Your task to perform on an android device: find snoozed emails in the gmail app Image 0: 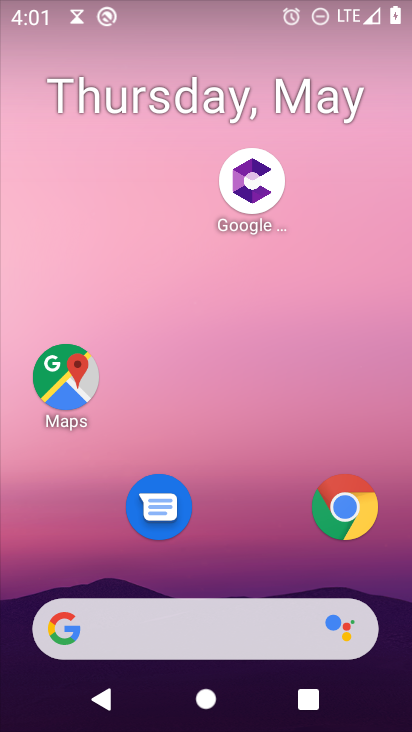
Step 0: press home button
Your task to perform on an android device: find snoozed emails in the gmail app Image 1: 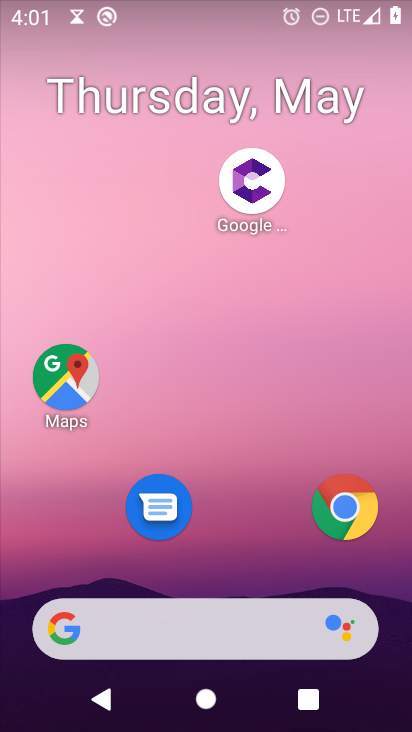
Step 1: drag from (294, 422) to (252, 53)
Your task to perform on an android device: find snoozed emails in the gmail app Image 2: 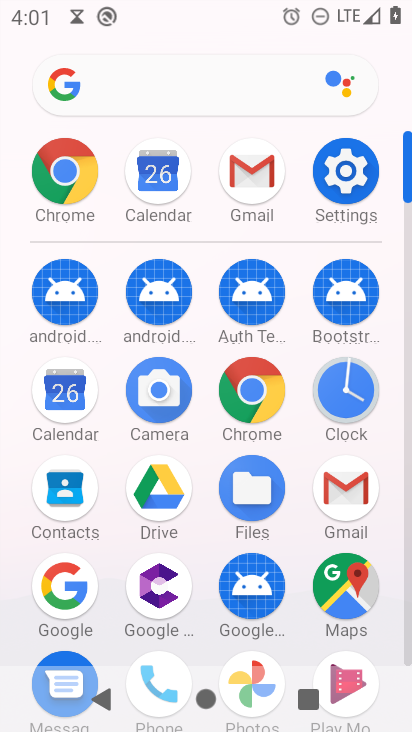
Step 2: click (252, 172)
Your task to perform on an android device: find snoozed emails in the gmail app Image 3: 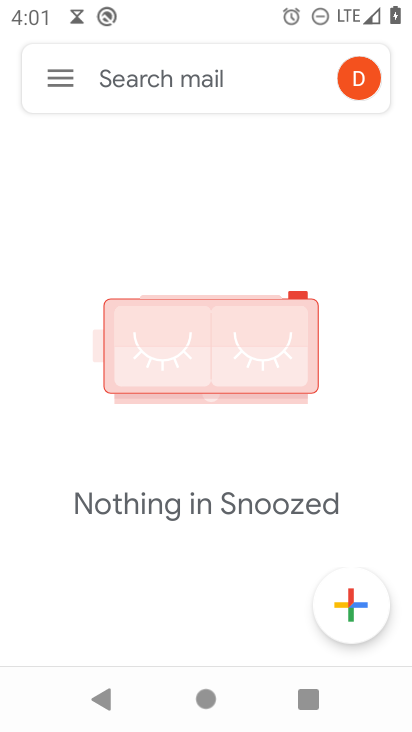
Step 3: click (57, 79)
Your task to perform on an android device: find snoozed emails in the gmail app Image 4: 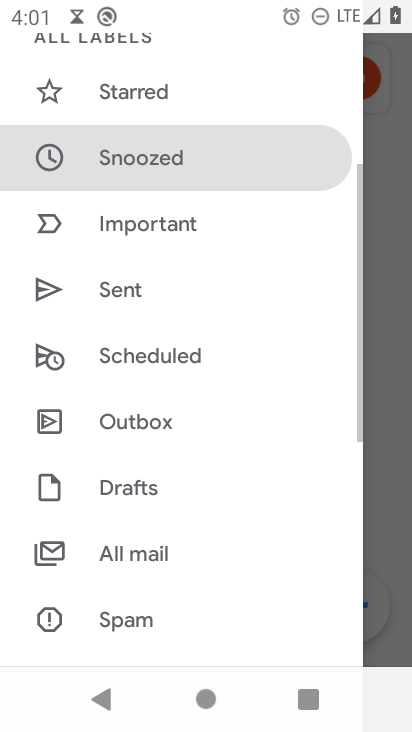
Step 4: click (86, 163)
Your task to perform on an android device: find snoozed emails in the gmail app Image 5: 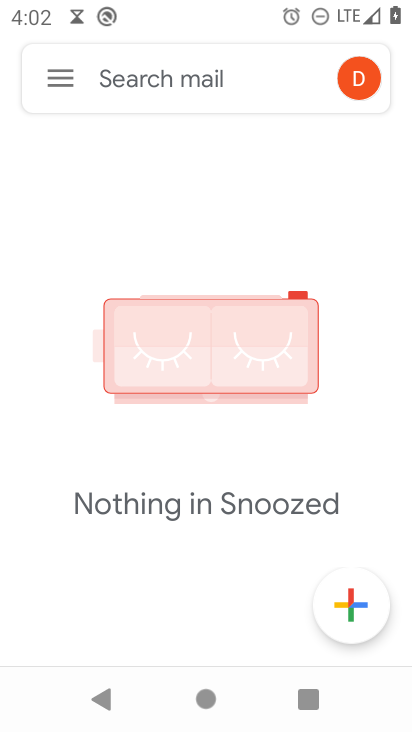
Step 5: task complete